Your task to perform on an android device: Open Chrome and go to settings Image 0: 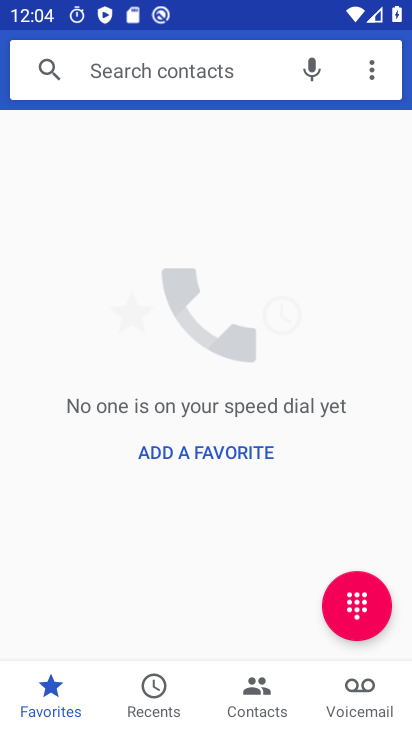
Step 0: press home button
Your task to perform on an android device: Open Chrome and go to settings Image 1: 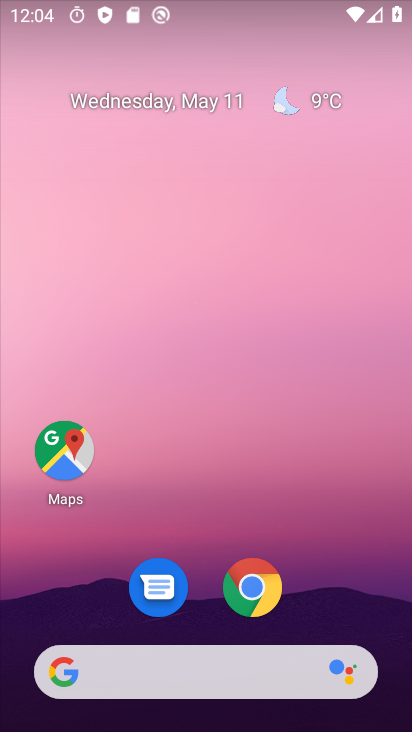
Step 1: drag from (255, 471) to (154, 245)
Your task to perform on an android device: Open Chrome and go to settings Image 2: 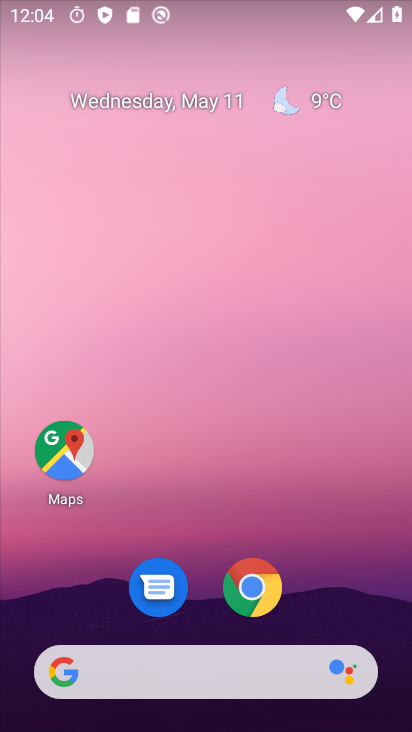
Step 2: drag from (329, 538) to (221, 67)
Your task to perform on an android device: Open Chrome and go to settings Image 3: 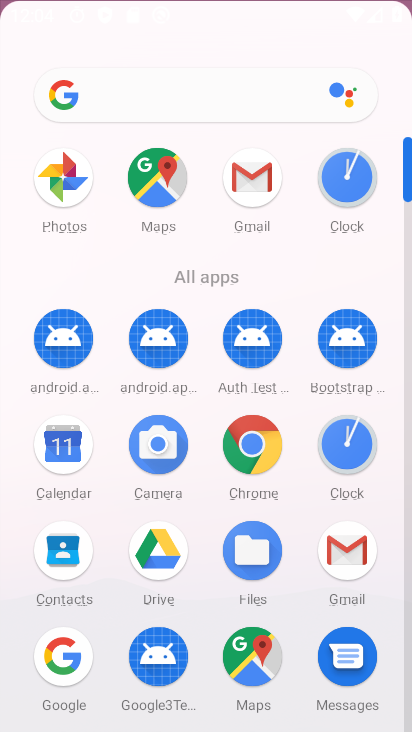
Step 3: drag from (275, 391) to (187, 58)
Your task to perform on an android device: Open Chrome and go to settings Image 4: 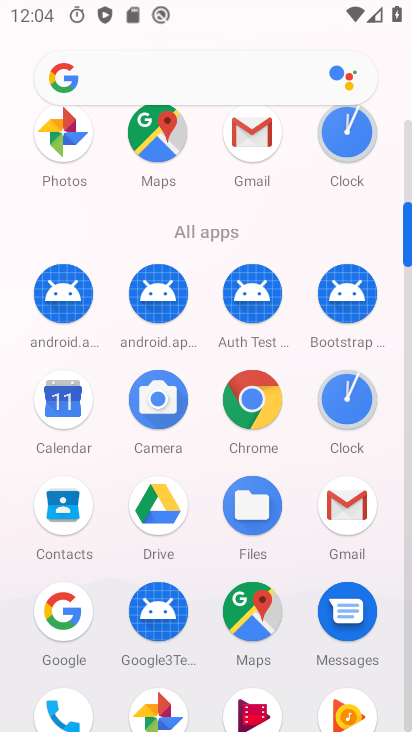
Step 4: click (247, 391)
Your task to perform on an android device: Open Chrome and go to settings Image 5: 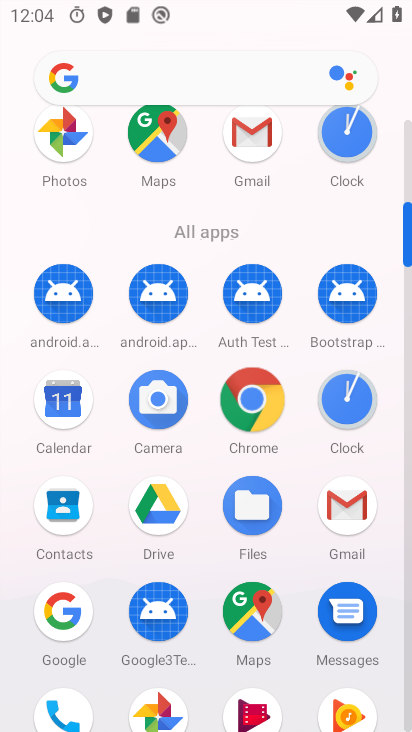
Step 5: click (248, 388)
Your task to perform on an android device: Open Chrome and go to settings Image 6: 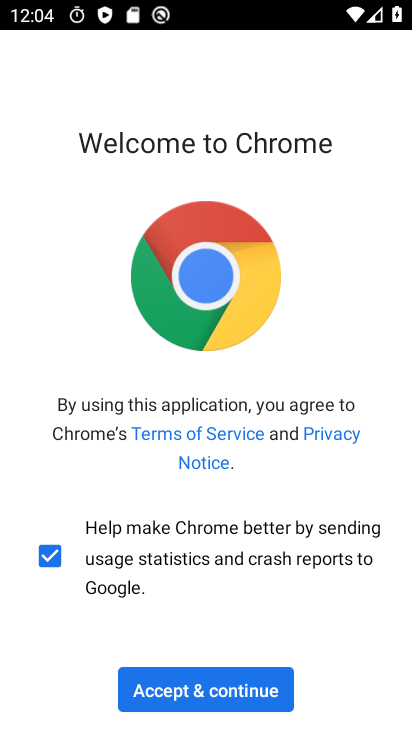
Step 6: click (236, 684)
Your task to perform on an android device: Open Chrome and go to settings Image 7: 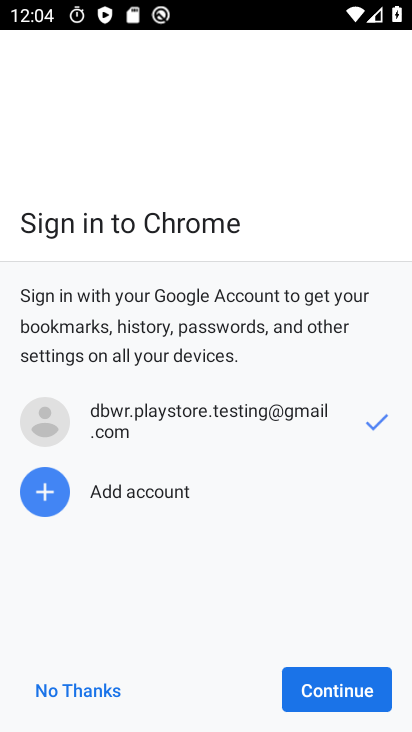
Step 7: click (334, 691)
Your task to perform on an android device: Open Chrome and go to settings Image 8: 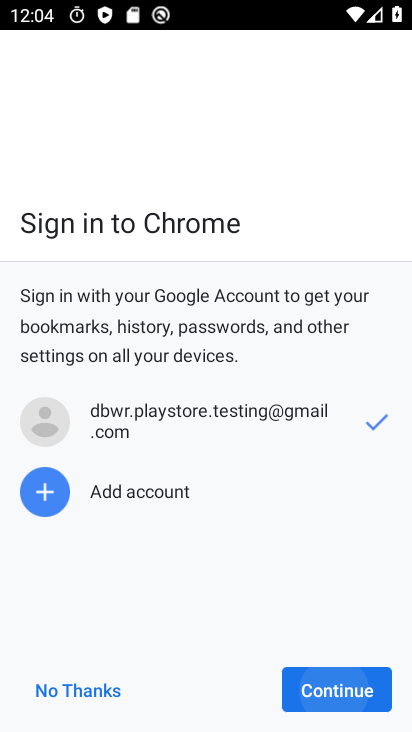
Step 8: click (336, 691)
Your task to perform on an android device: Open Chrome and go to settings Image 9: 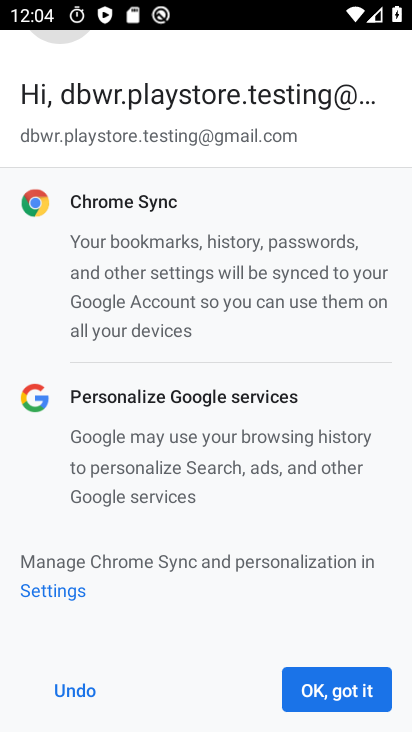
Step 9: click (339, 688)
Your task to perform on an android device: Open Chrome and go to settings Image 10: 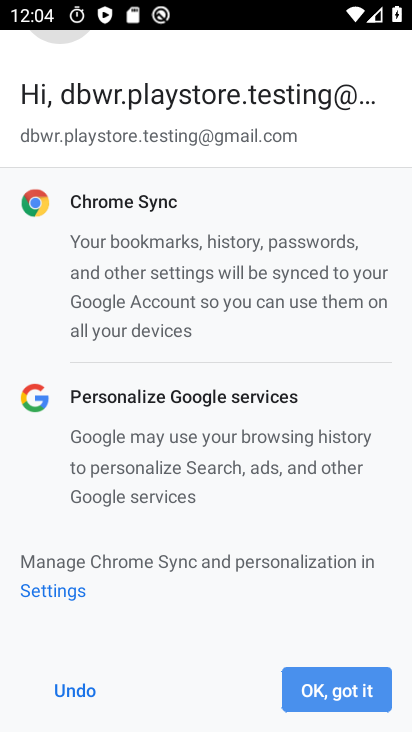
Step 10: click (340, 689)
Your task to perform on an android device: Open Chrome and go to settings Image 11: 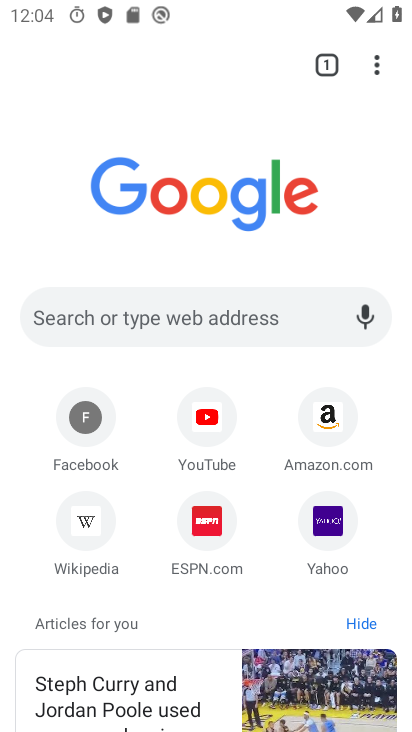
Step 11: drag from (369, 68) to (135, 543)
Your task to perform on an android device: Open Chrome and go to settings Image 12: 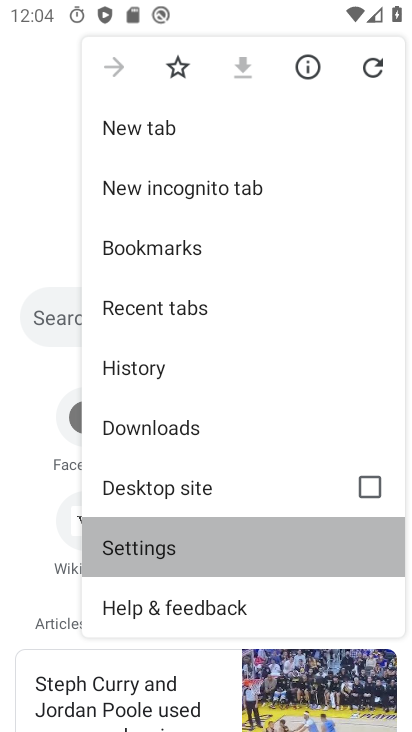
Step 12: click (135, 543)
Your task to perform on an android device: Open Chrome and go to settings Image 13: 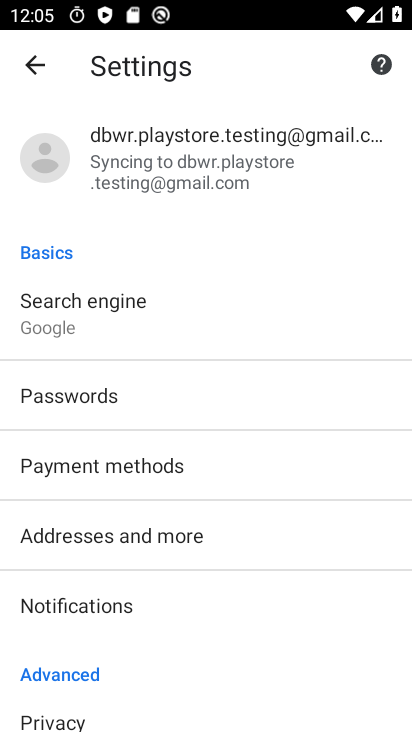
Step 13: task complete